Your task to perform on an android device: uninstall "LiveIn - Share Your Moment" Image 0: 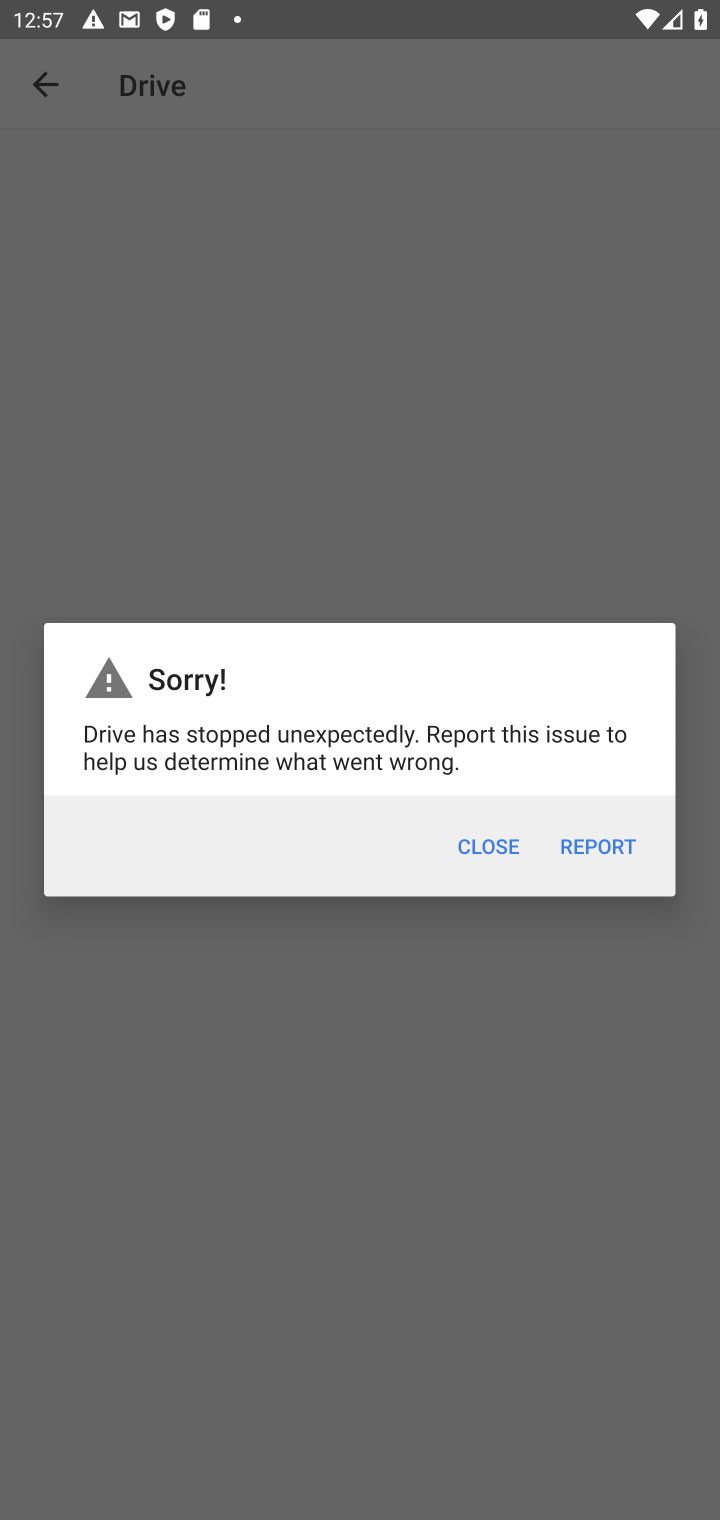
Step 0: press home button
Your task to perform on an android device: uninstall "LiveIn - Share Your Moment" Image 1: 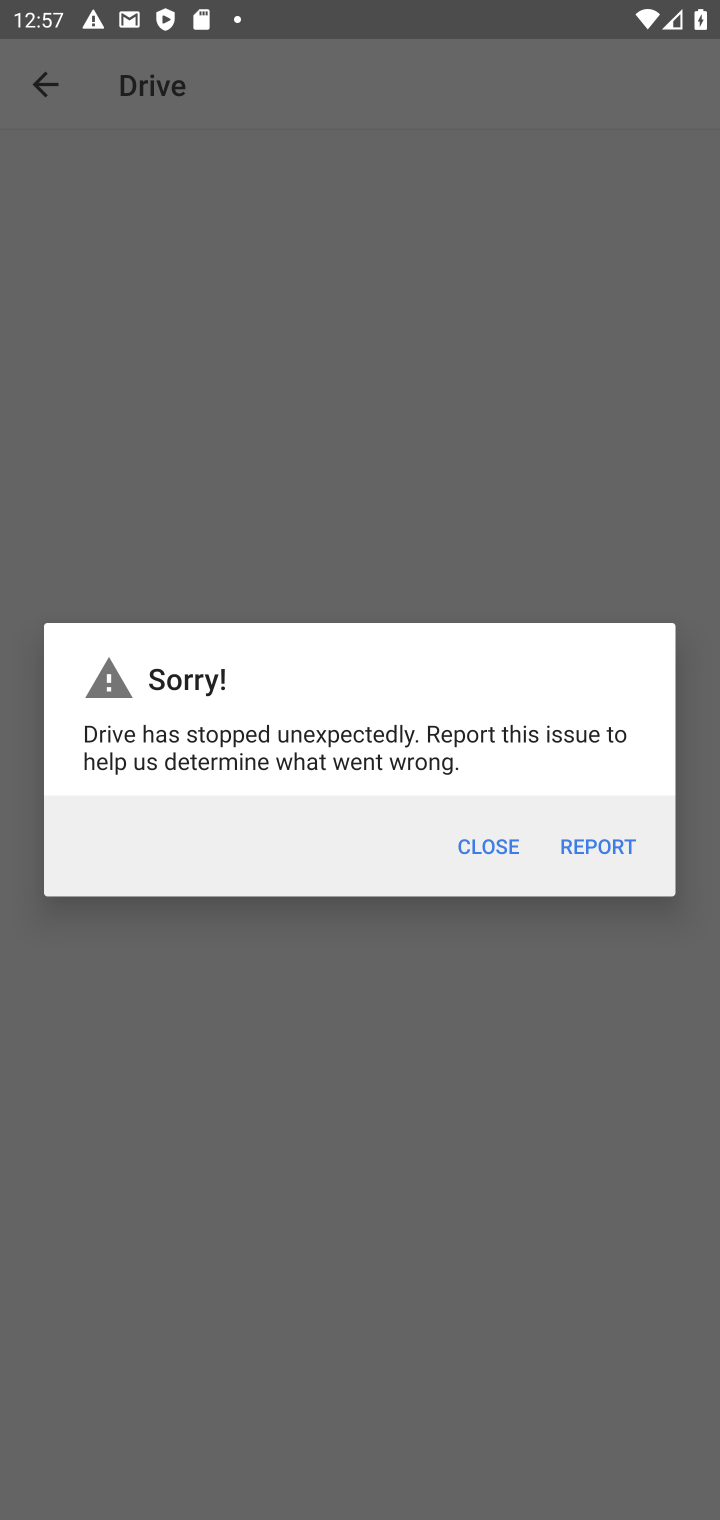
Step 1: press home button
Your task to perform on an android device: uninstall "LiveIn - Share Your Moment" Image 2: 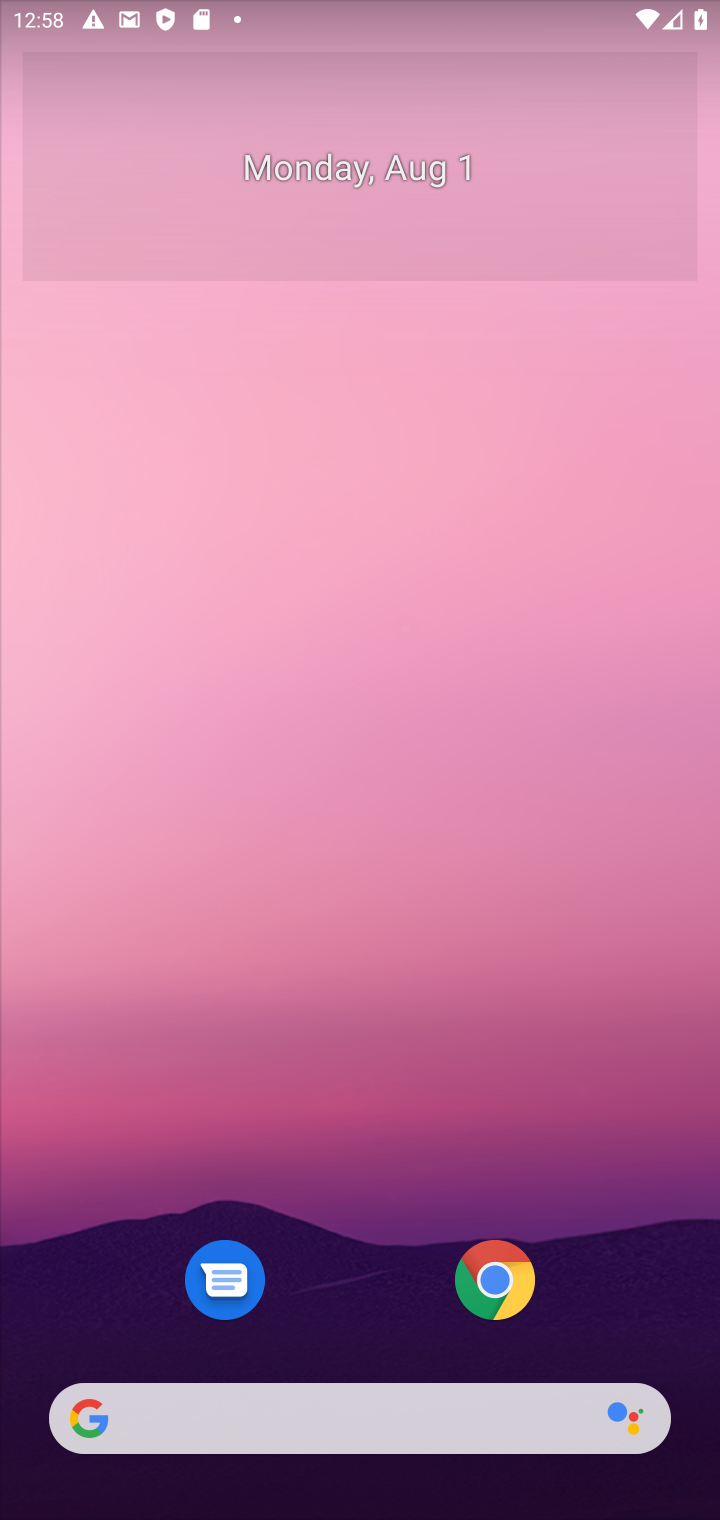
Step 2: drag from (375, 772) to (373, 47)
Your task to perform on an android device: uninstall "LiveIn - Share Your Moment" Image 3: 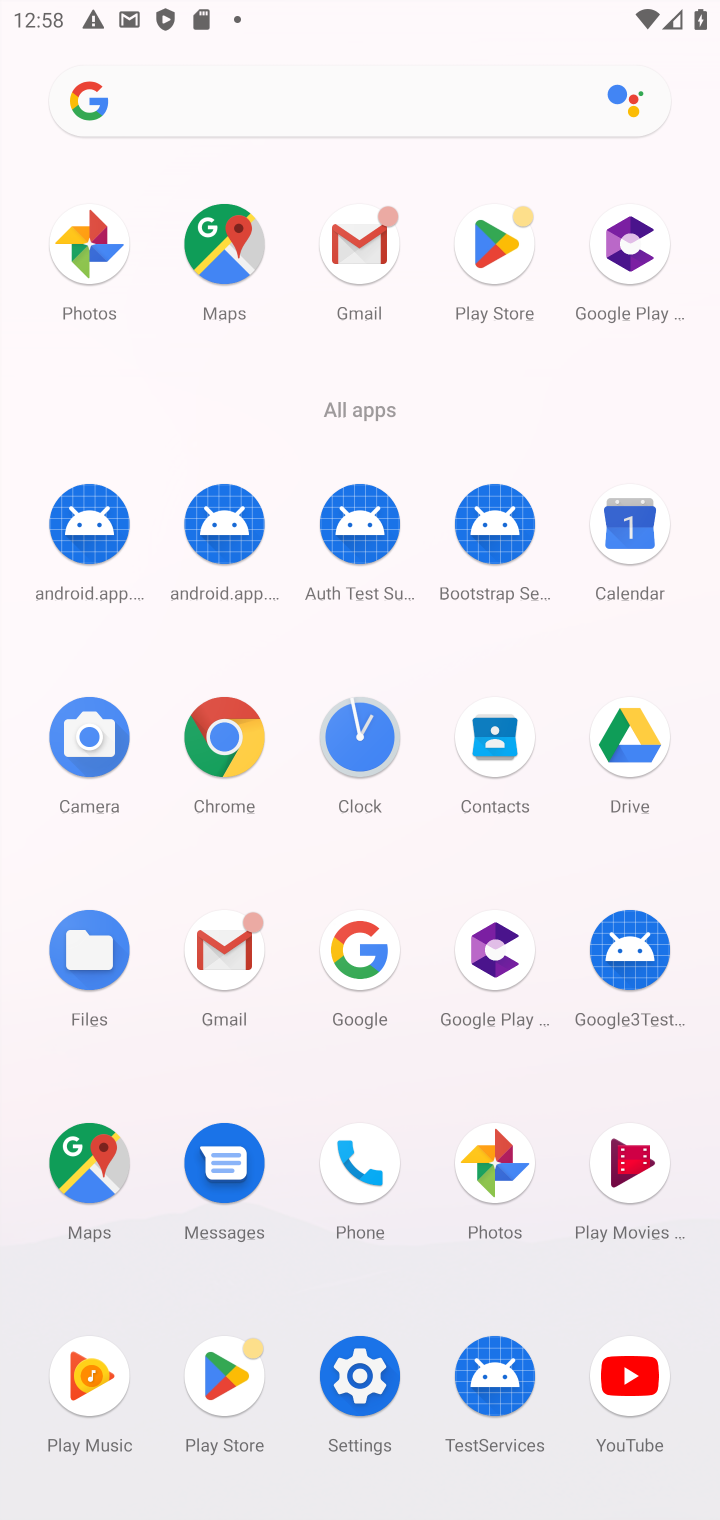
Step 3: click (503, 243)
Your task to perform on an android device: uninstall "LiveIn - Share Your Moment" Image 4: 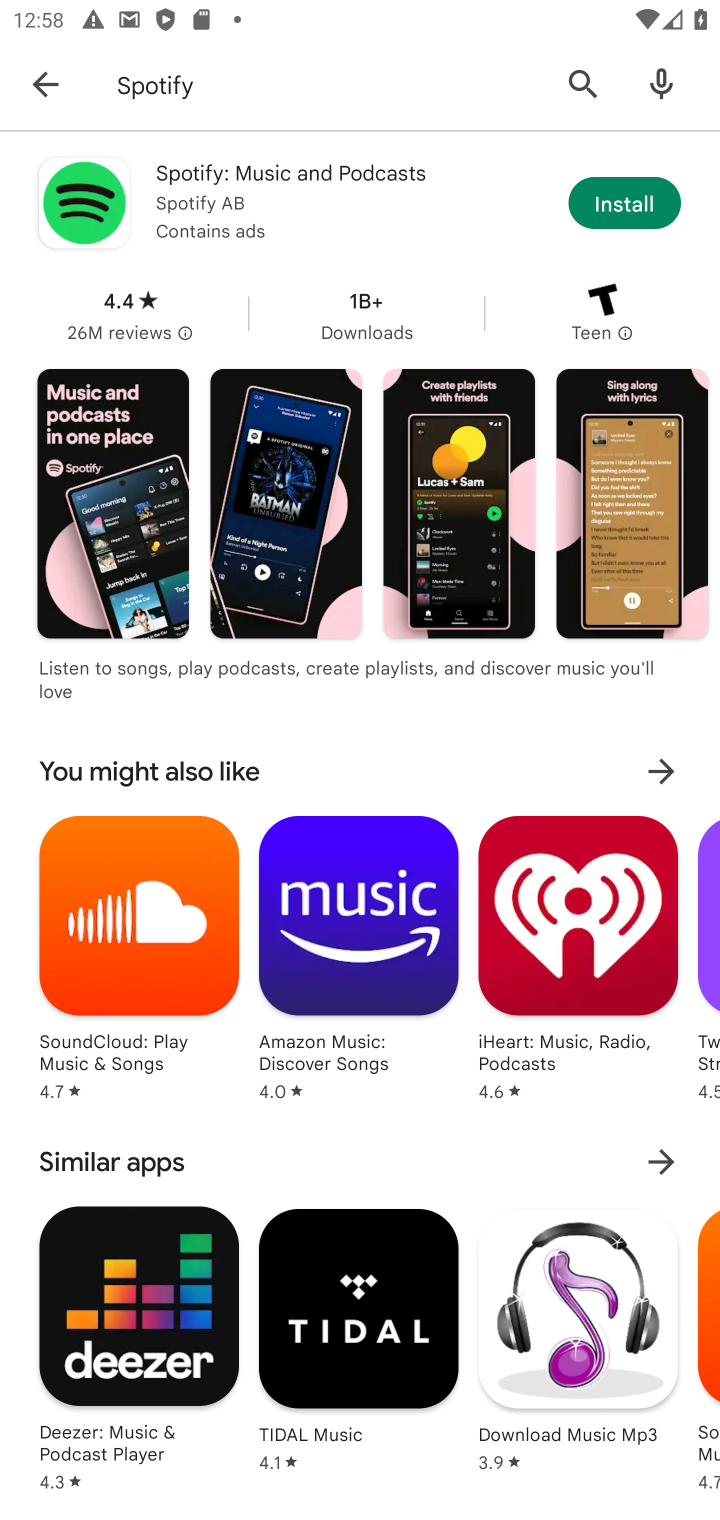
Step 4: click (429, 79)
Your task to perform on an android device: uninstall "LiveIn - Share Your Moment" Image 5: 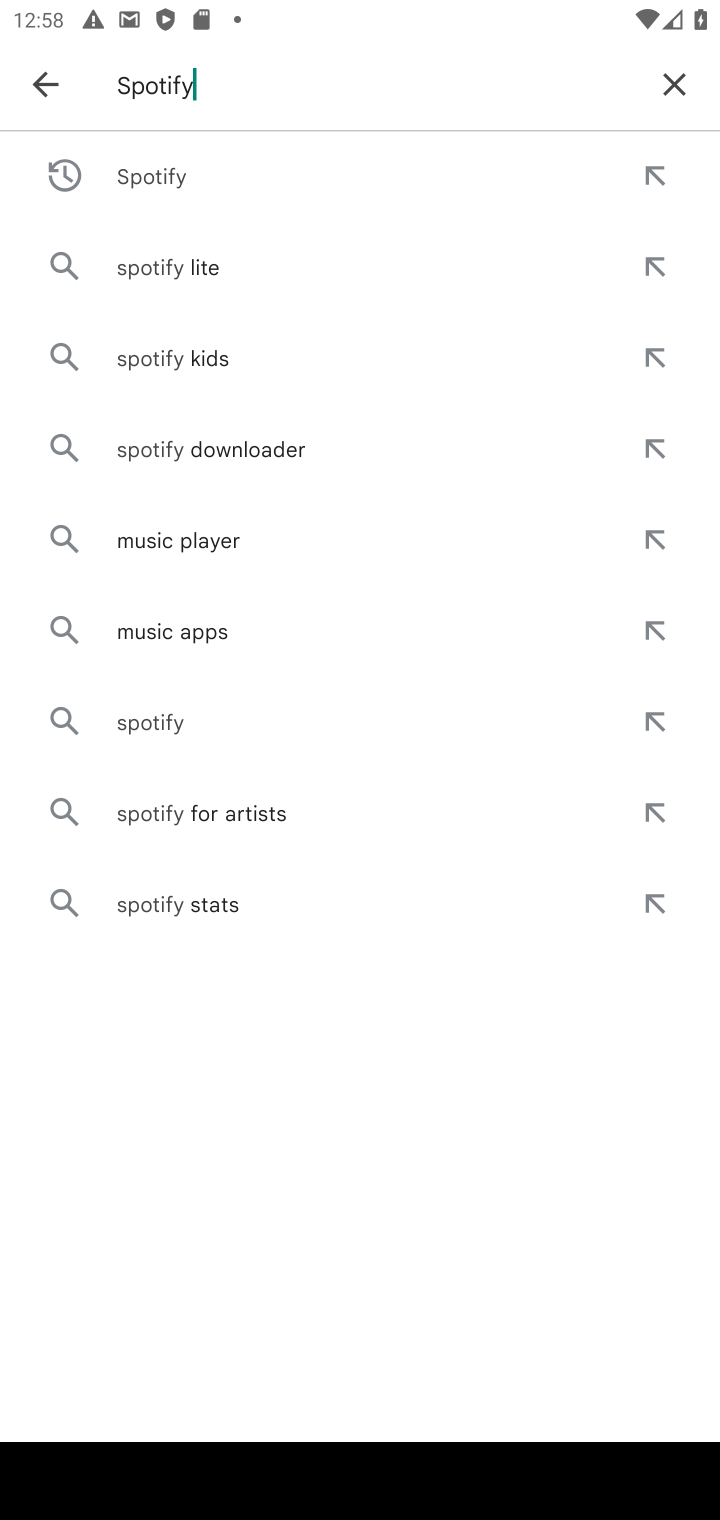
Step 5: click (675, 82)
Your task to perform on an android device: uninstall "LiveIn - Share Your Moment" Image 6: 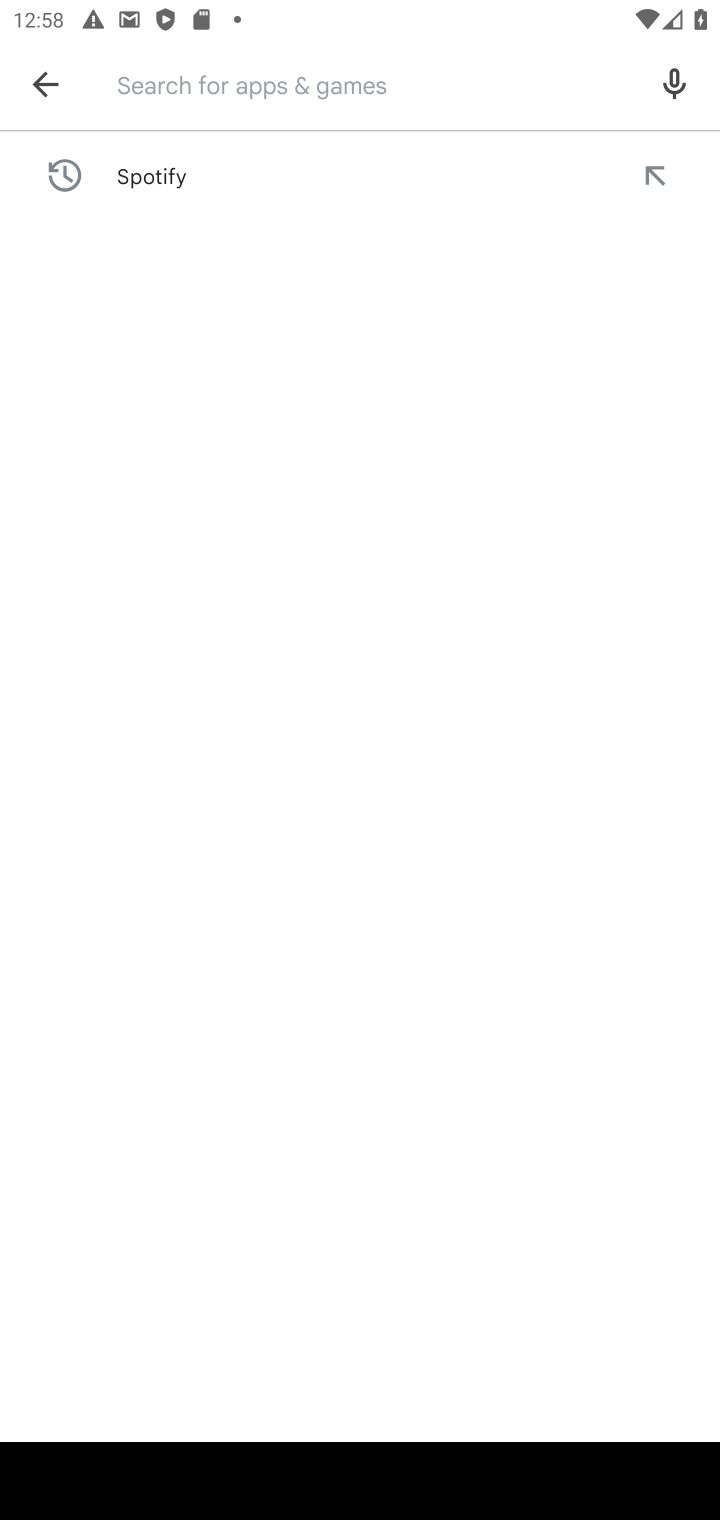
Step 6: type "Liveln - Share Your Moment"
Your task to perform on an android device: uninstall "LiveIn - Share Your Moment" Image 7: 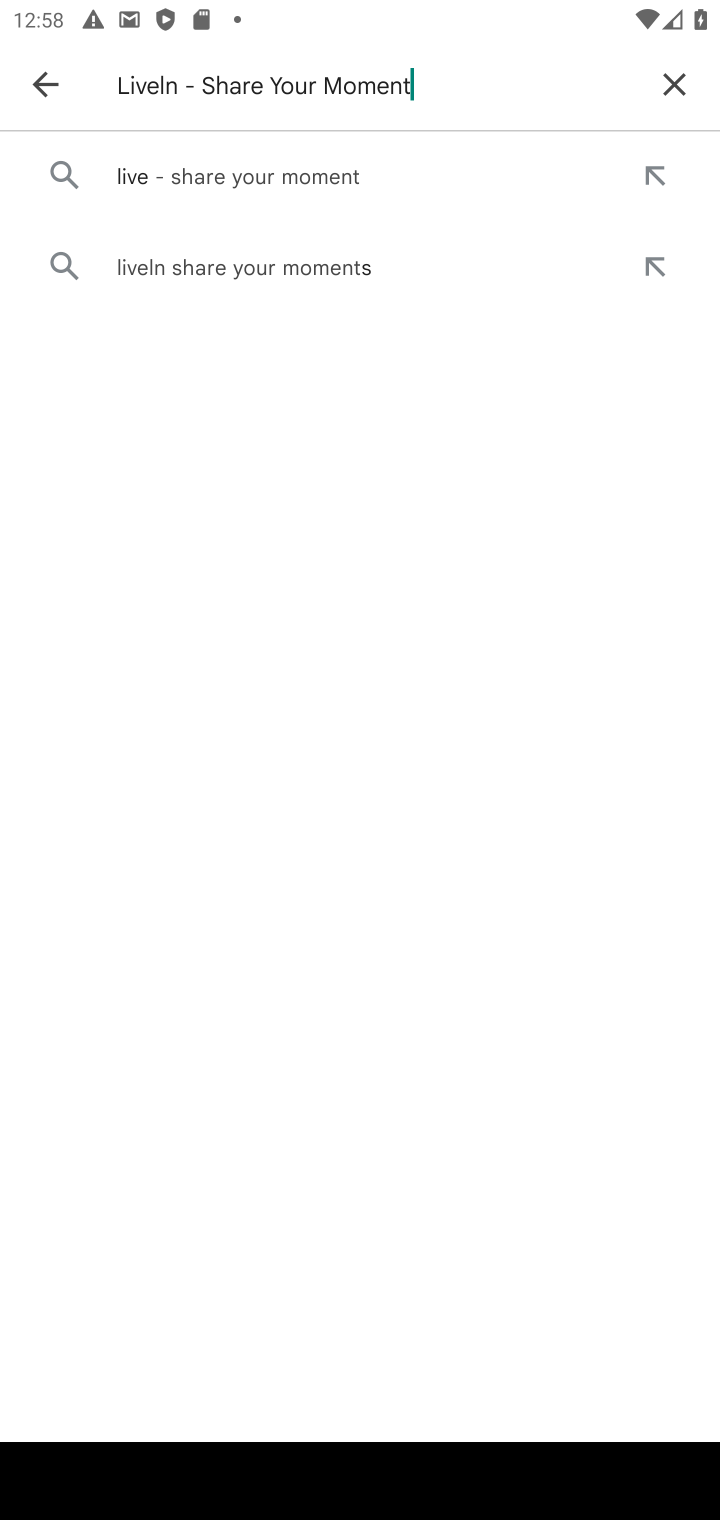
Step 7: press enter
Your task to perform on an android device: uninstall "LiveIn - Share Your Moment" Image 8: 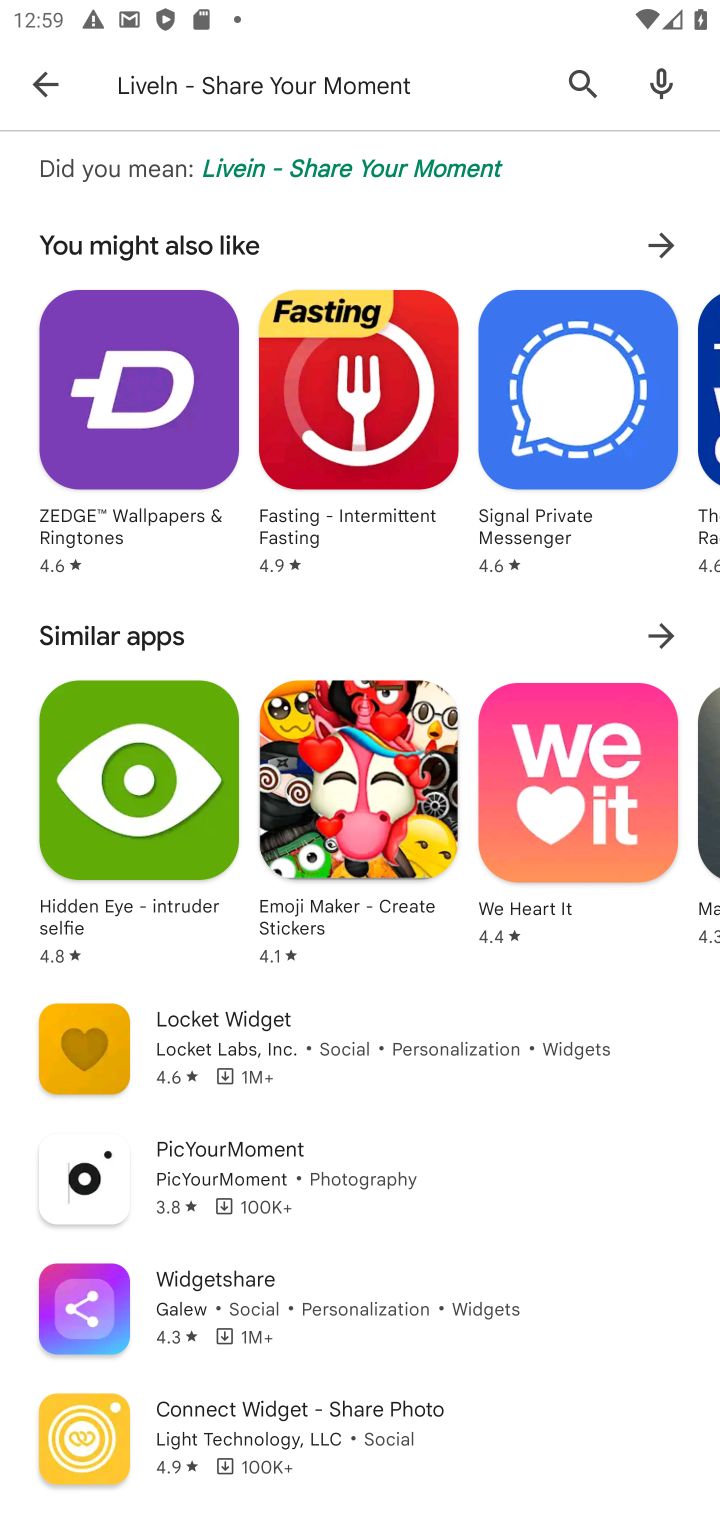
Step 8: click (332, 161)
Your task to perform on an android device: uninstall "LiveIn - Share Your Moment" Image 9: 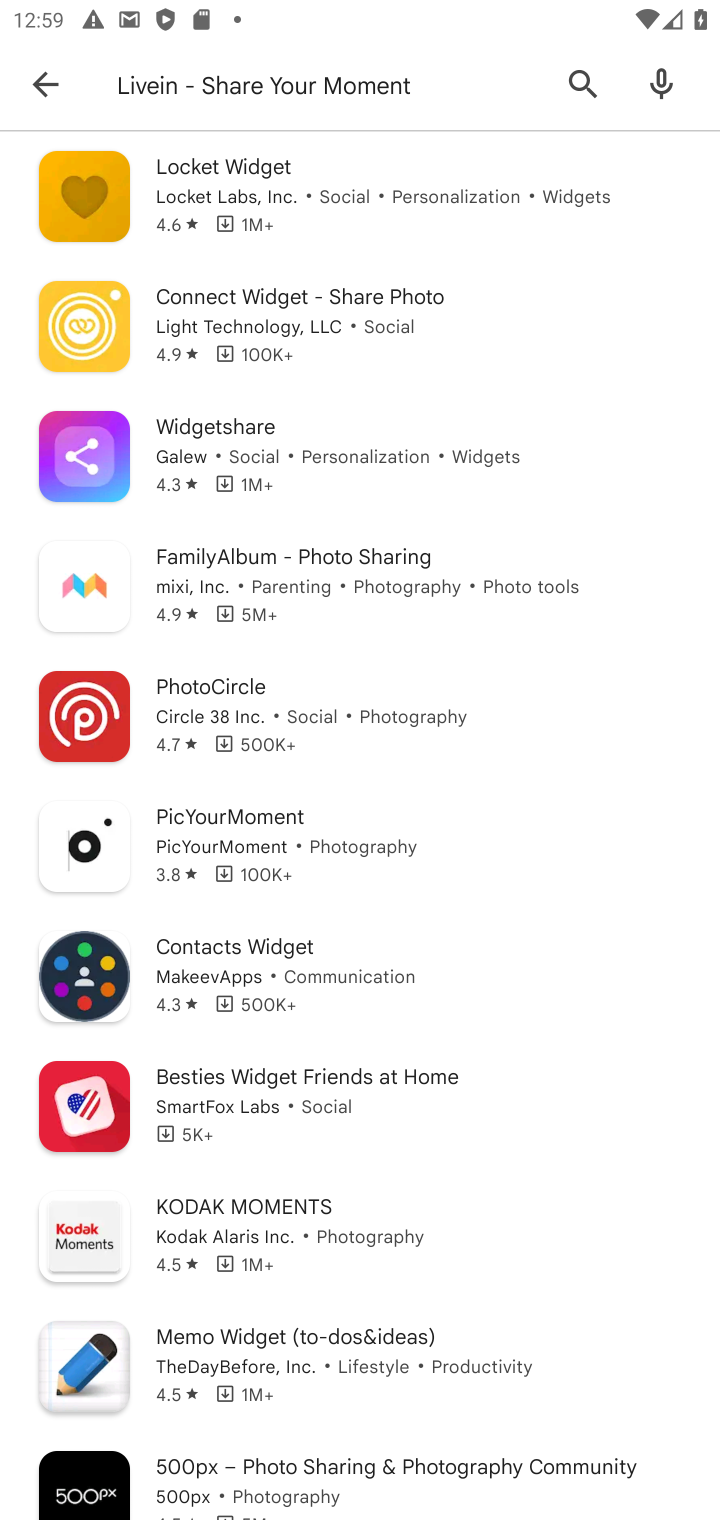
Step 9: task complete